Your task to perform on an android device: Show me productivity apps on the Play Store Image 0: 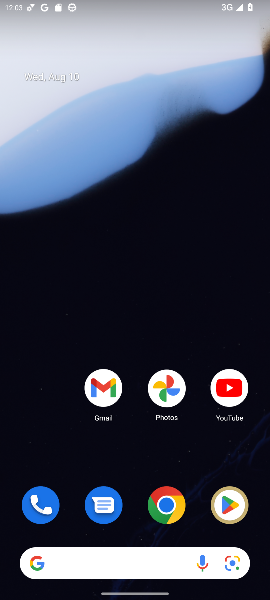
Step 0: press home button
Your task to perform on an android device: Show me productivity apps on the Play Store Image 1: 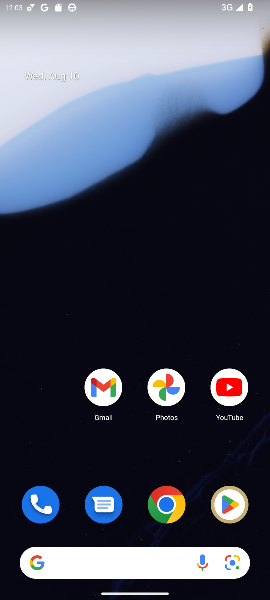
Step 1: drag from (135, 522) to (156, 132)
Your task to perform on an android device: Show me productivity apps on the Play Store Image 2: 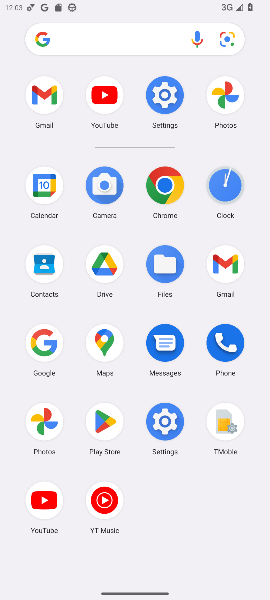
Step 2: click (104, 418)
Your task to perform on an android device: Show me productivity apps on the Play Store Image 3: 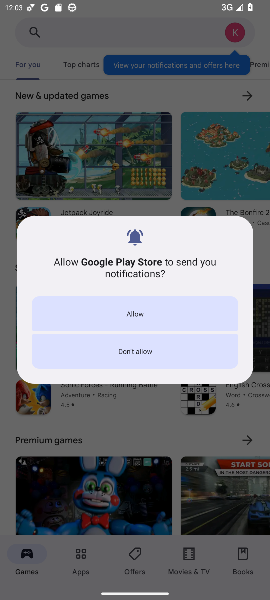
Step 3: click (132, 308)
Your task to perform on an android device: Show me productivity apps on the Play Store Image 4: 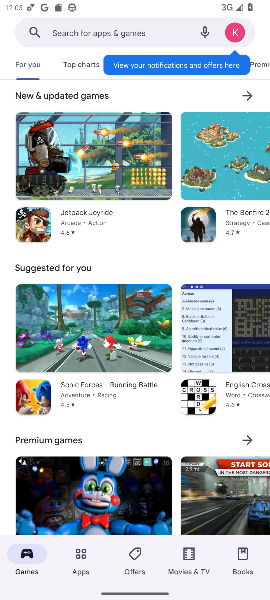
Step 4: click (77, 557)
Your task to perform on an android device: Show me productivity apps on the Play Store Image 5: 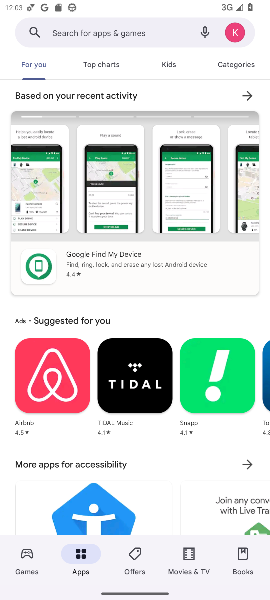
Step 5: click (239, 66)
Your task to perform on an android device: Show me productivity apps on the Play Store Image 6: 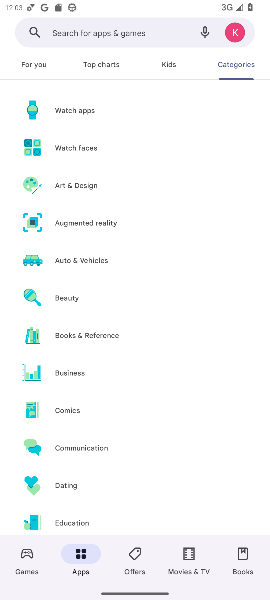
Step 6: drag from (160, 467) to (164, 132)
Your task to perform on an android device: Show me productivity apps on the Play Store Image 7: 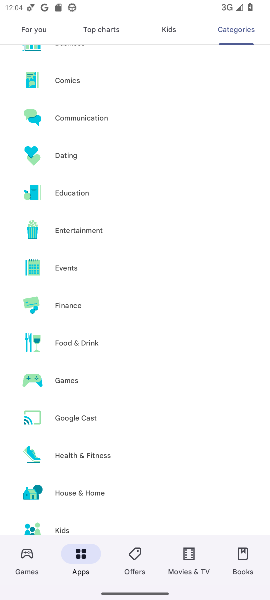
Step 7: drag from (176, 504) to (170, 218)
Your task to perform on an android device: Show me productivity apps on the Play Store Image 8: 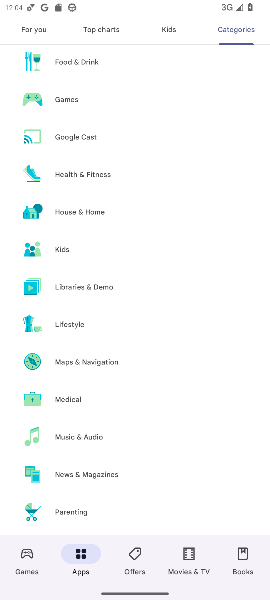
Step 8: drag from (188, 463) to (206, 218)
Your task to perform on an android device: Show me productivity apps on the Play Store Image 9: 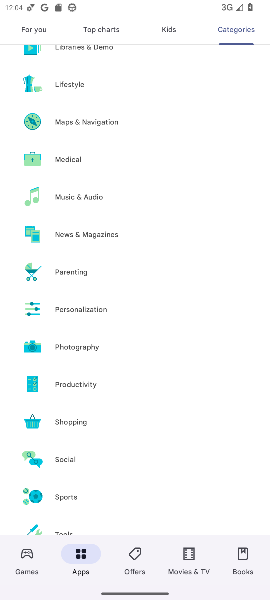
Step 9: drag from (172, 484) to (162, 232)
Your task to perform on an android device: Show me productivity apps on the Play Store Image 10: 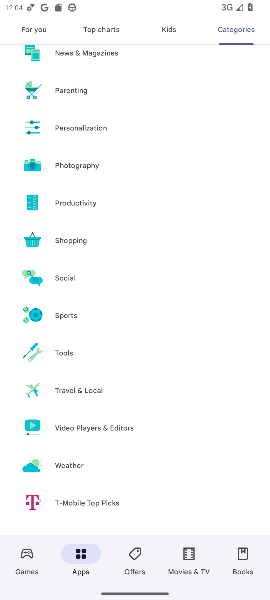
Step 10: click (73, 202)
Your task to perform on an android device: Show me productivity apps on the Play Store Image 11: 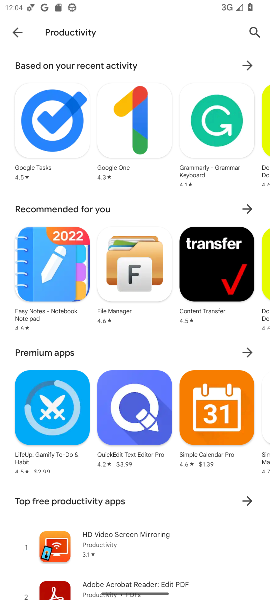
Step 11: task complete